Your task to perform on an android device: Go to sound settings Image 0: 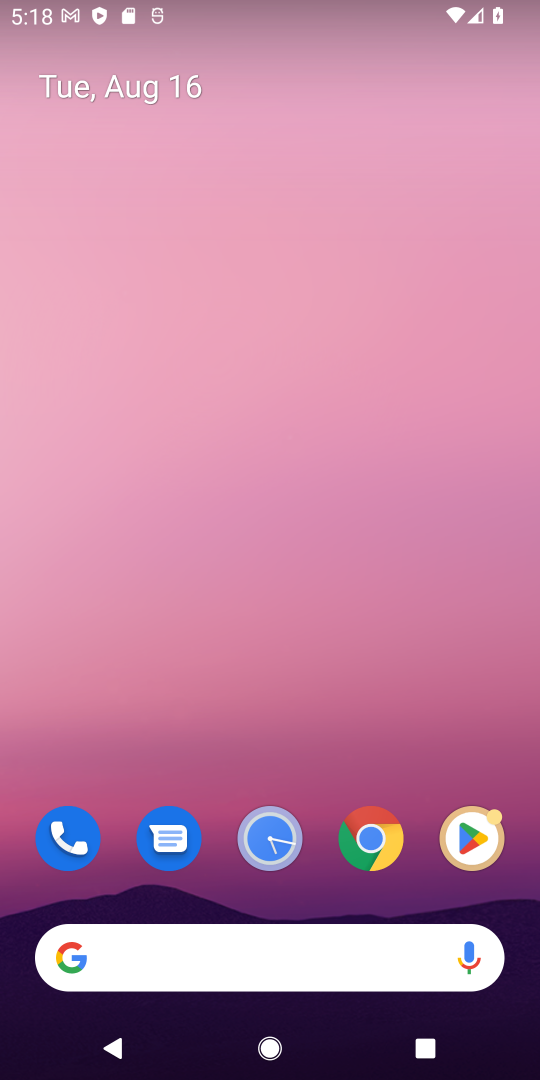
Step 0: drag from (260, 927) to (369, 89)
Your task to perform on an android device: Go to sound settings Image 1: 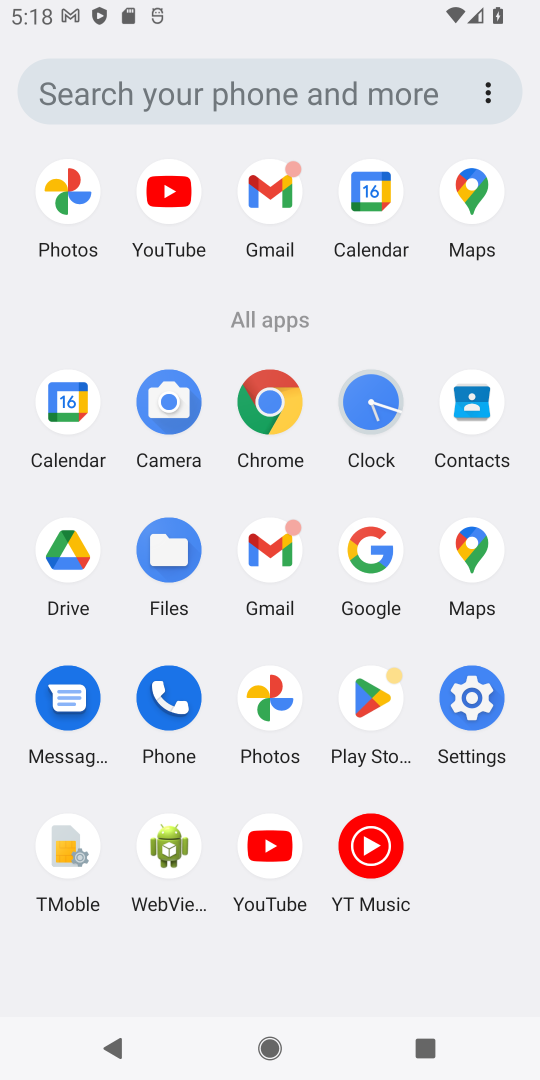
Step 1: click (455, 695)
Your task to perform on an android device: Go to sound settings Image 2: 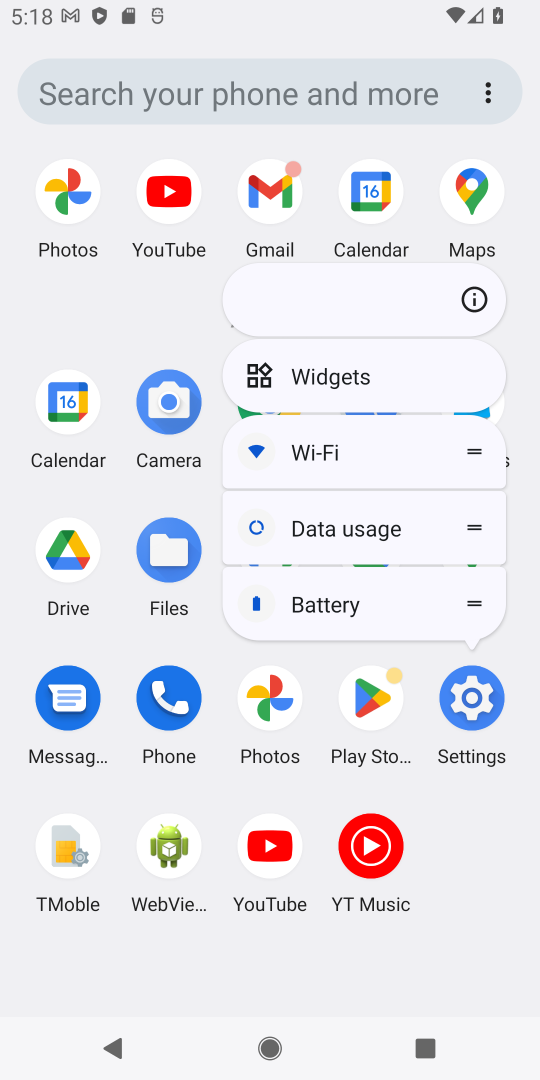
Step 2: click (480, 700)
Your task to perform on an android device: Go to sound settings Image 3: 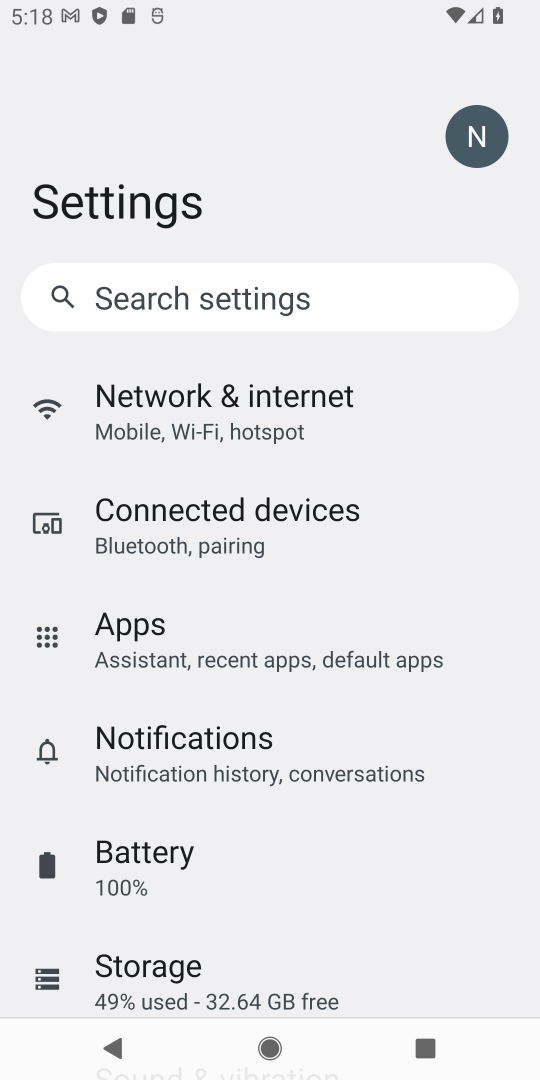
Step 3: drag from (245, 824) to (327, 250)
Your task to perform on an android device: Go to sound settings Image 4: 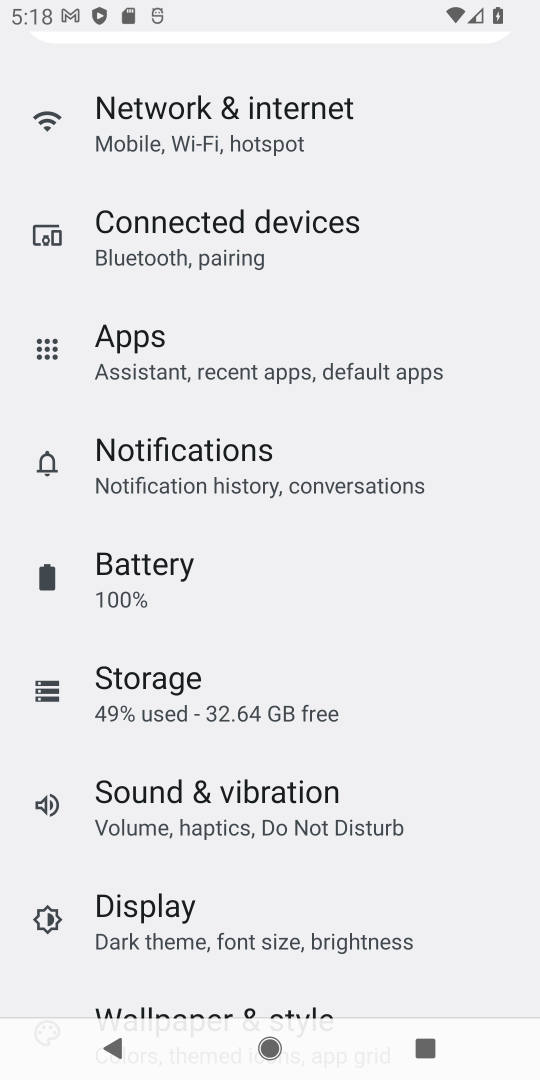
Step 4: drag from (195, 902) to (304, 317)
Your task to perform on an android device: Go to sound settings Image 5: 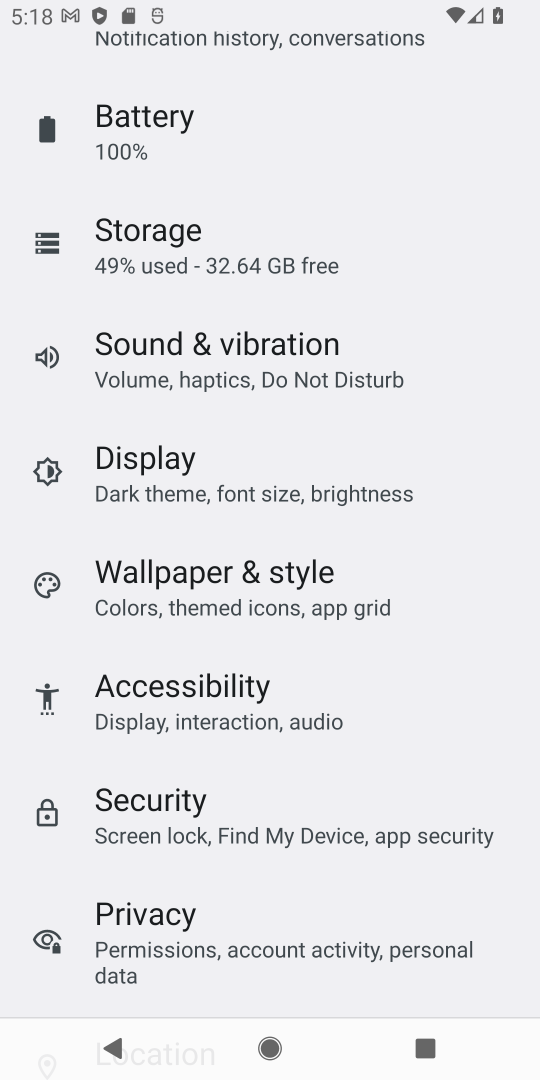
Step 5: drag from (226, 812) to (248, 966)
Your task to perform on an android device: Go to sound settings Image 6: 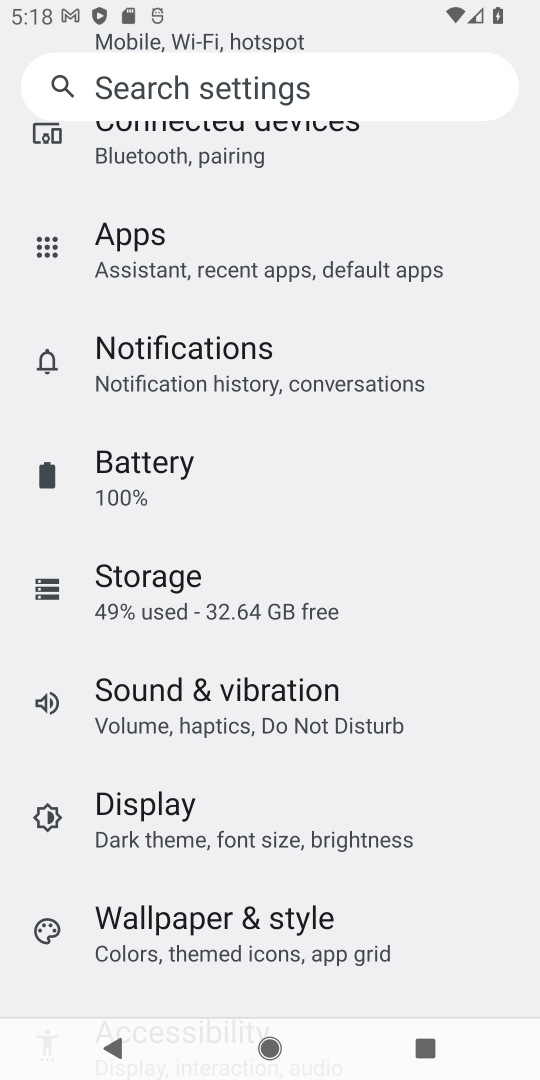
Step 6: click (235, 718)
Your task to perform on an android device: Go to sound settings Image 7: 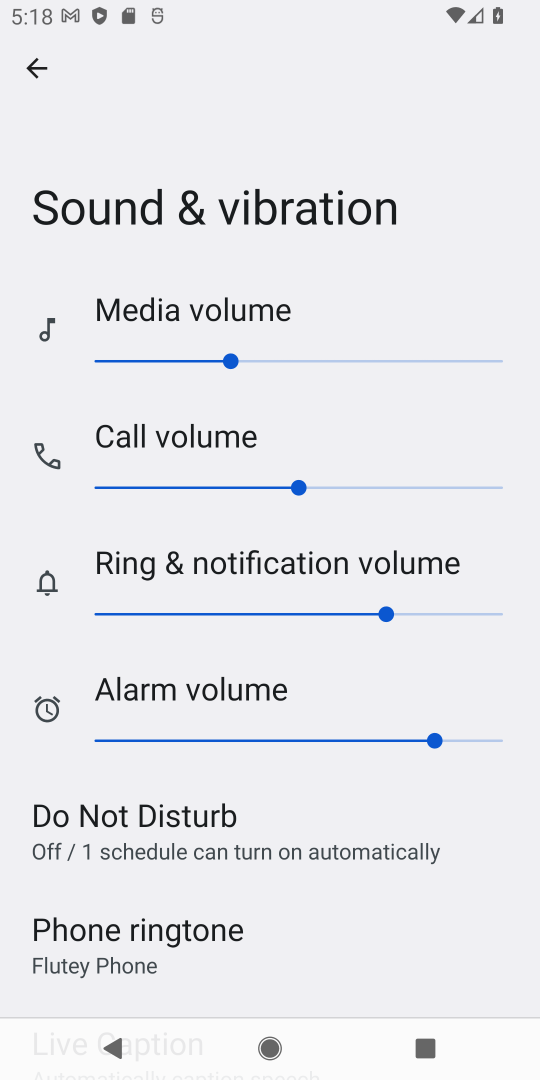
Step 7: task complete